Your task to perform on an android device: Go to ESPN.com Image 0: 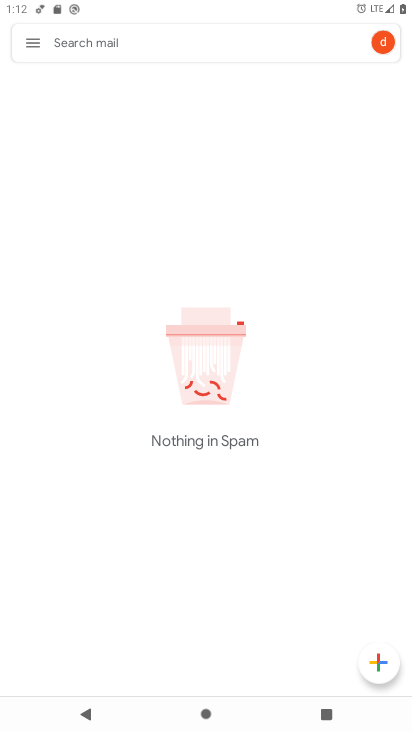
Step 0: press home button
Your task to perform on an android device: Go to ESPN.com Image 1: 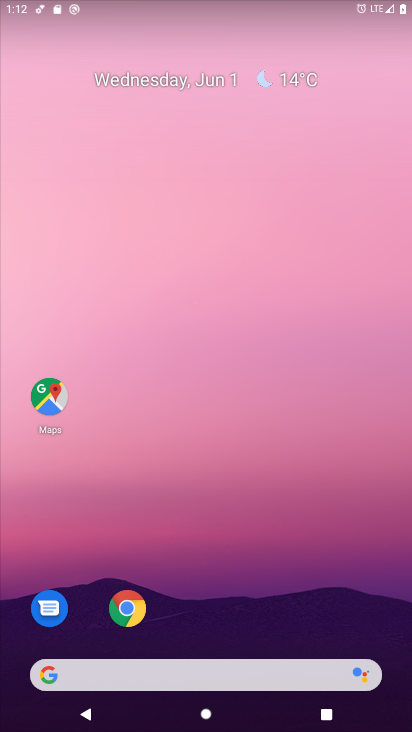
Step 1: click (137, 607)
Your task to perform on an android device: Go to ESPN.com Image 2: 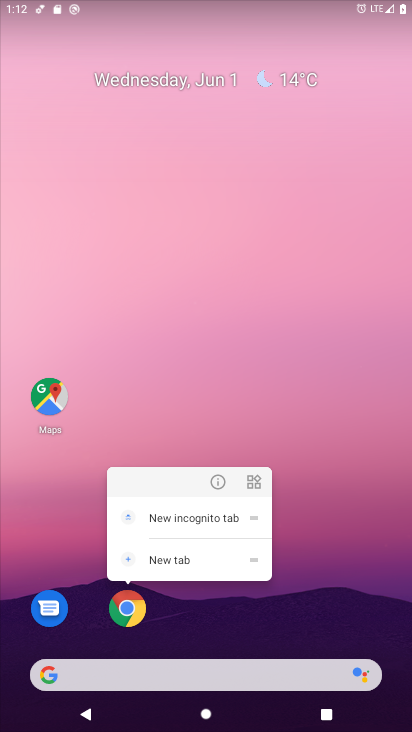
Step 2: click (134, 604)
Your task to perform on an android device: Go to ESPN.com Image 3: 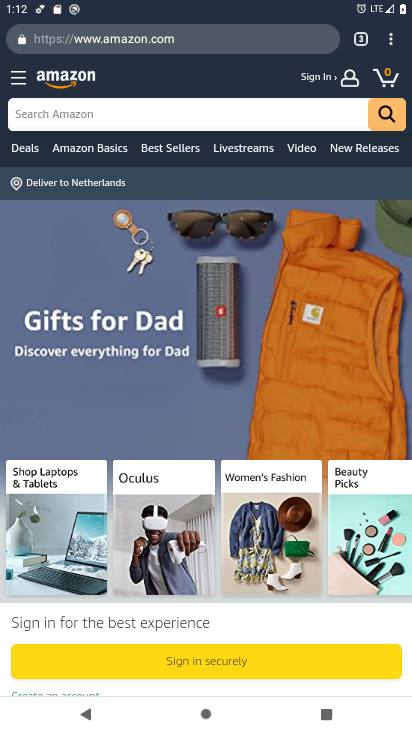
Step 3: click (142, 33)
Your task to perform on an android device: Go to ESPN.com Image 4: 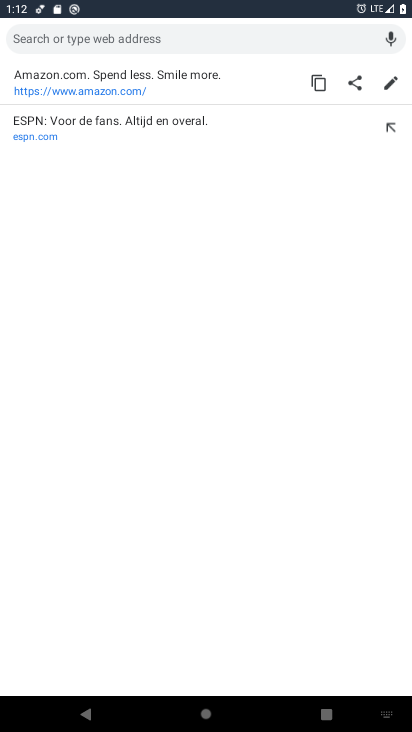
Step 4: type "ESPN.com"
Your task to perform on an android device: Go to ESPN.com Image 5: 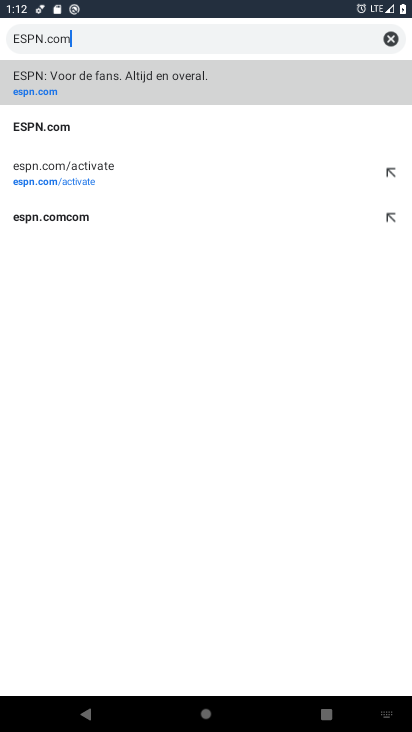
Step 5: click (61, 134)
Your task to perform on an android device: Go to ESPN.com Image 6: 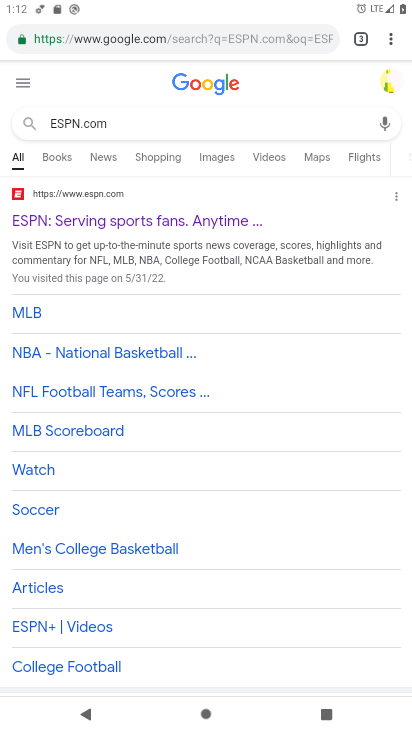
Step 6: task complete